Your task to perform on an android device: turn off priority inbox in the gmail app Image 0: 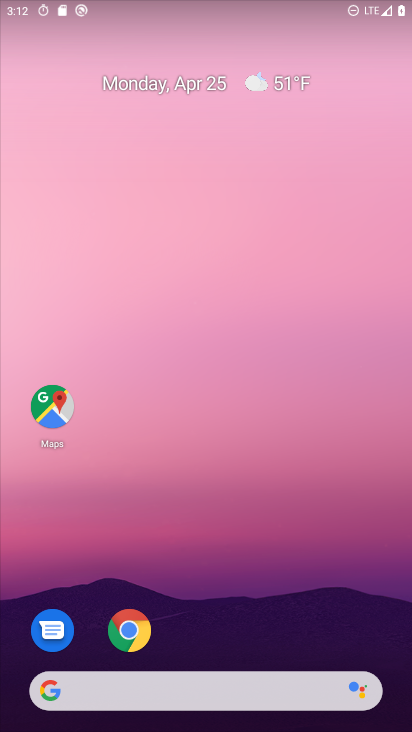
Step 0: click (185, 374)
Your task to perform on an android device: turn off priority inbox in the gmail app Image 1: 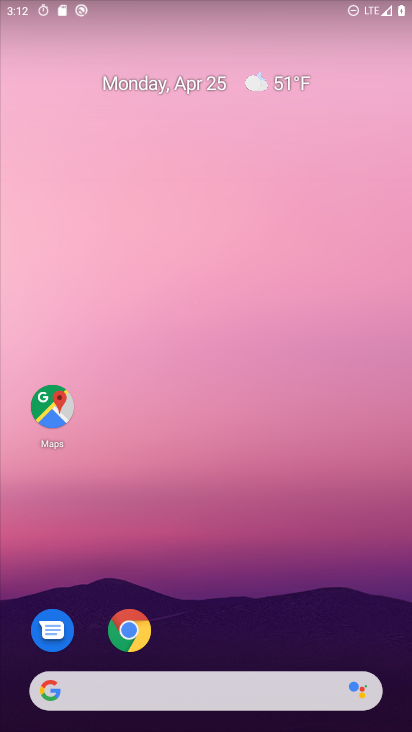
Step 1: click (230, 489)
Your task to perform on an android device: turn off priority inbox in the gmail app Image 2: 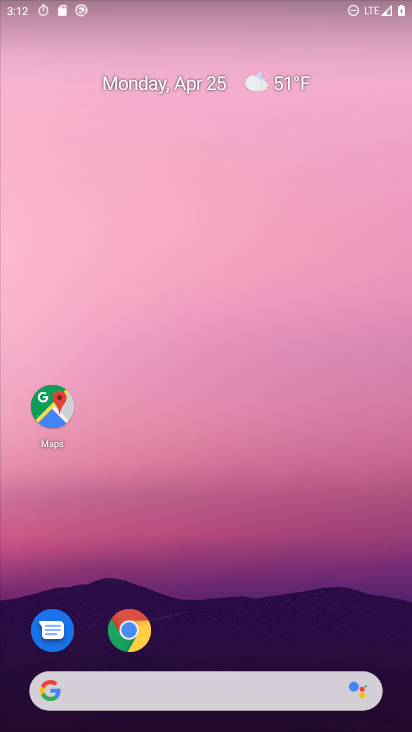
Step 2: drag from (207, 655) to (296, 4)
Your task to perform on an android device: turn off priority inbox in the gmail app Image 3: 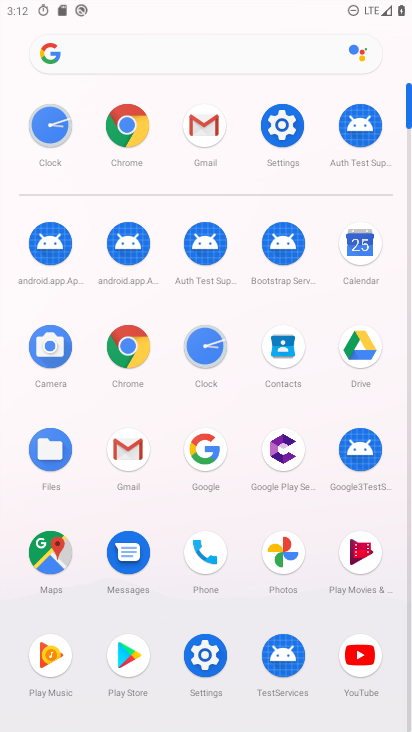
Step 3: drag from (248, 622) to (277, 238)
Your task to perform on an android device: turn off priority inbox in the gmail app Image 4: 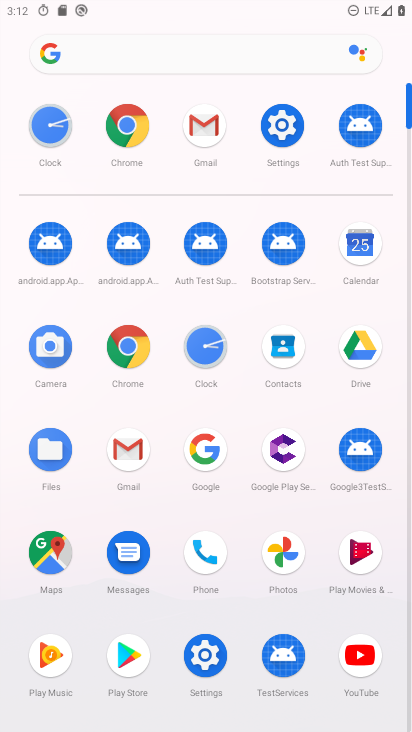
Step 4: drag from (237, 650) to (276, 273)
Your task to perform on an android device: turn off priority inbox in the gmail app Image 5: 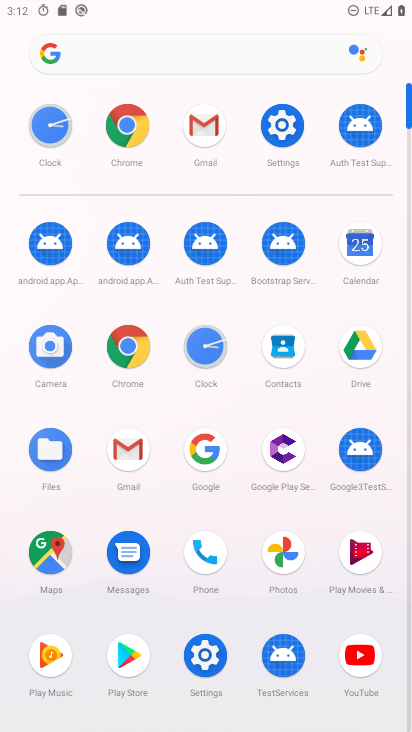
Step 5: drag from (173, 624) to (224, 286)
Your task to perform on an android device: turn off priority inbox in the gmail app Image 6: 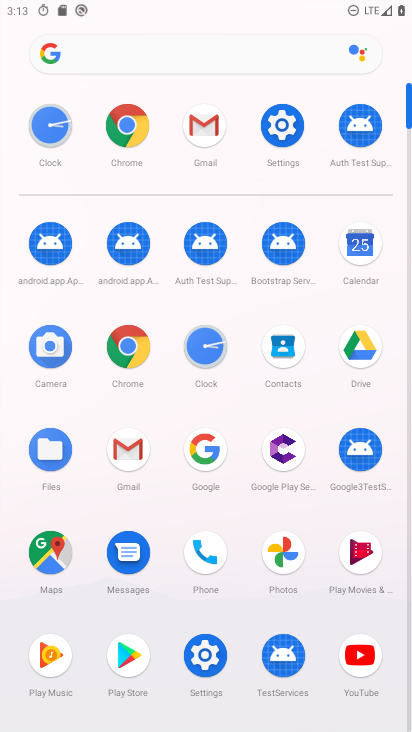
Step 6: drag from (165, 649) to (185, 266)
Your task to perform on an android device: turn off priority inbox in the gmail app Image 7: 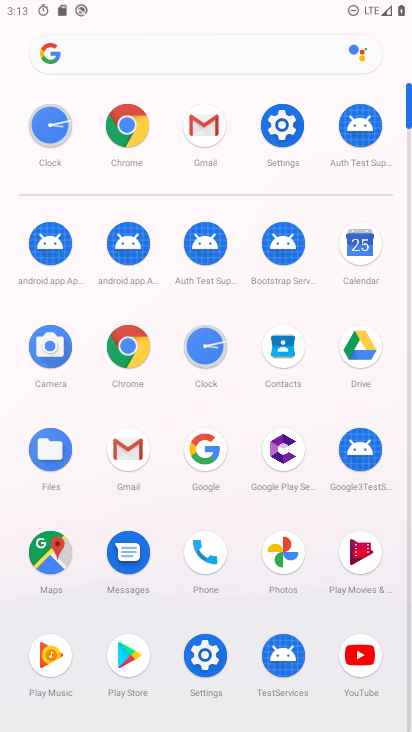
Step 7: click (131, 439)
Your task to perform on an android device: turn off priority inbox in the gmail app Image 8: 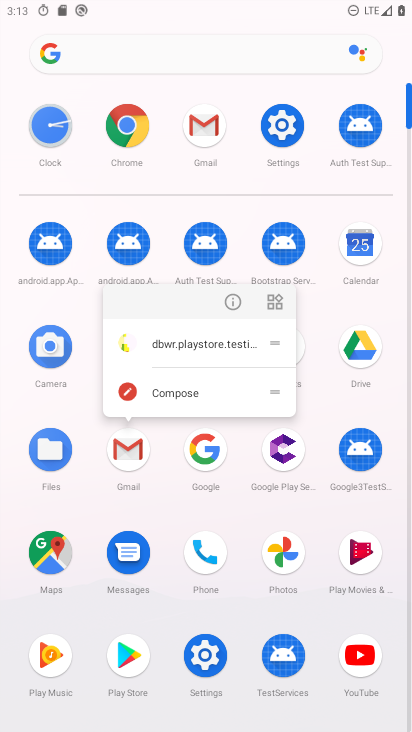
Step 8: click (227, 302)
Your task to perform on an android device: turn off priority inbox in the gmail app Image 9: 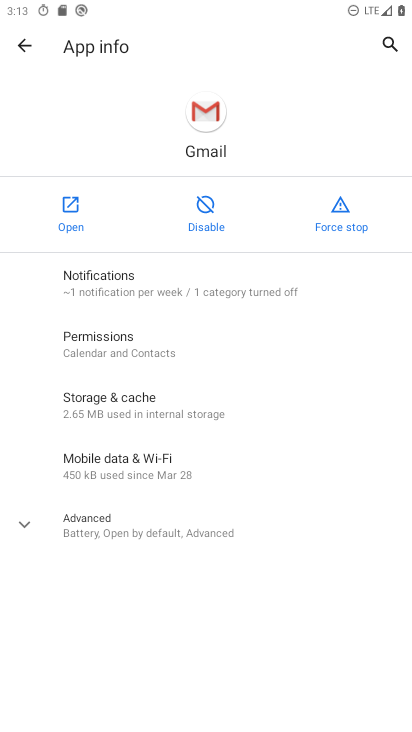
Step 9: click (65, 206)
Your task to perform on an android device: turn off priority inbox in the gmail app Image 10: 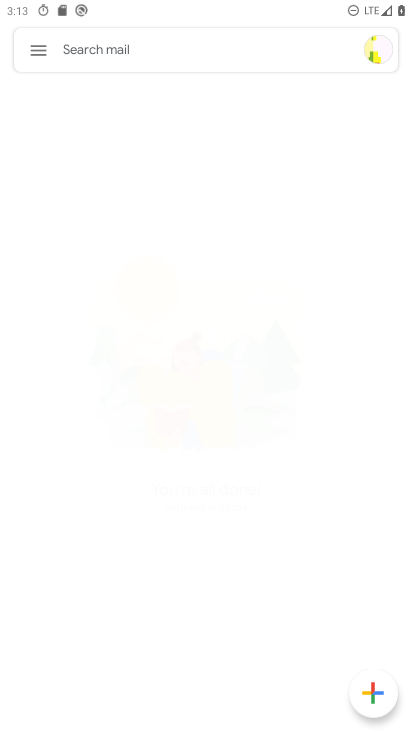
Step 10: click (27, 44)
Your task to perform on an android device: turn off priority inbox in the gmail app Image 11: 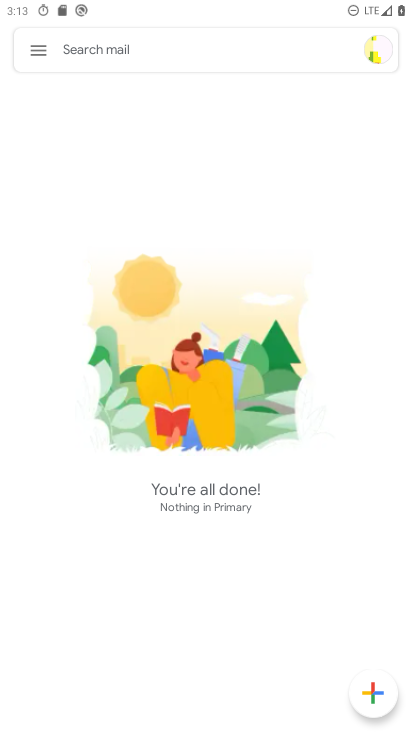
Step 11: click (35, 49)
Your task to perform on an android device: turn off priority inbox in the gmail app Image 12: 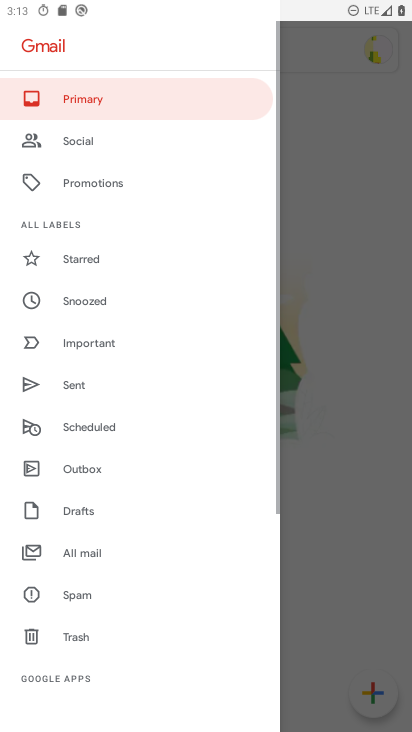
Step 12: drag from (68, 516) to (148, 153)
Your task to perform on an android device: turn off priority inbox in the gmail app Image 13: 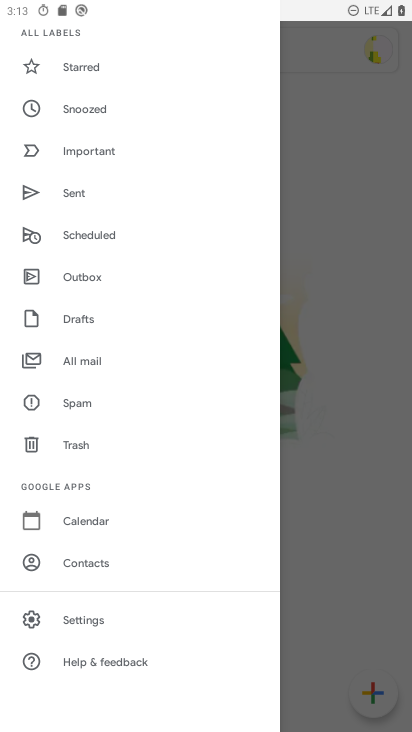
Step 13: drag from (107, 530) to (147, 289)
Your task to perform on an android device: turn off priority inbox in the gmail app Image 14: 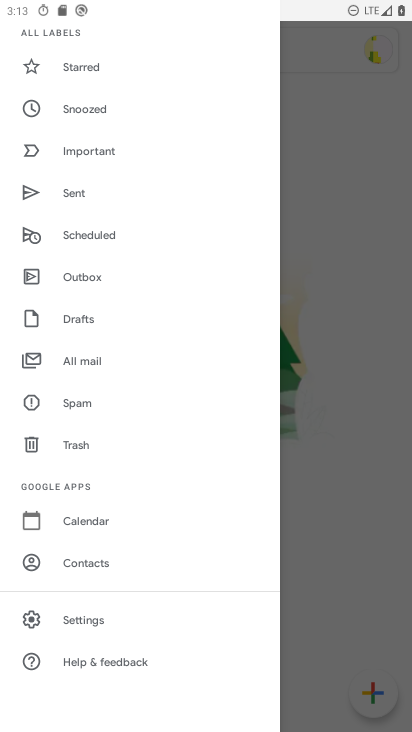
Step 14: click (94, 617)
Your task to perform on an android device: turn off priority inbox in the gmail app Image 15: 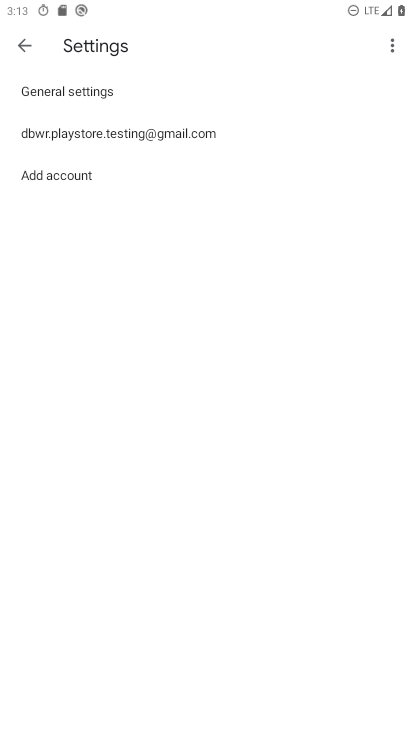
Step 15: click (122, 127)
Your task to perform on an android device: turn off priority inbox in the gmail app Image 16: 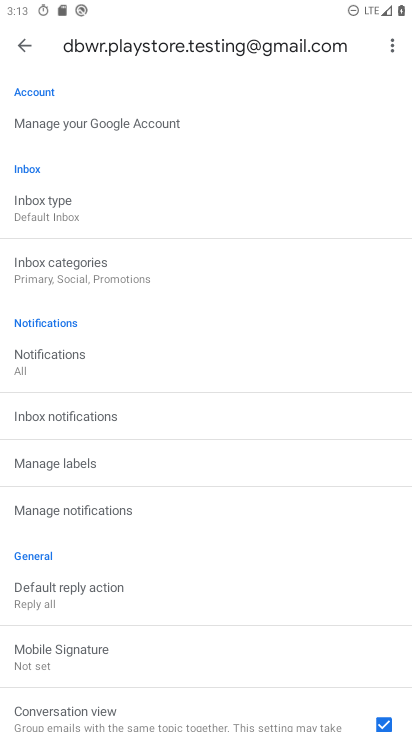
Step 16: click (96, 210)
Your task to perform on an android device: turn off priority inbox in the gmail app Image 17: 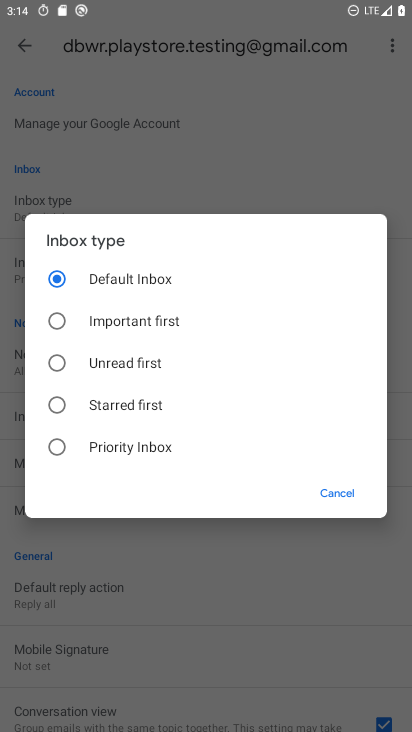
Step 17: click (77, 437)
Your task to perform on an android device: turn off priority inbox in the gmail app Image 18: 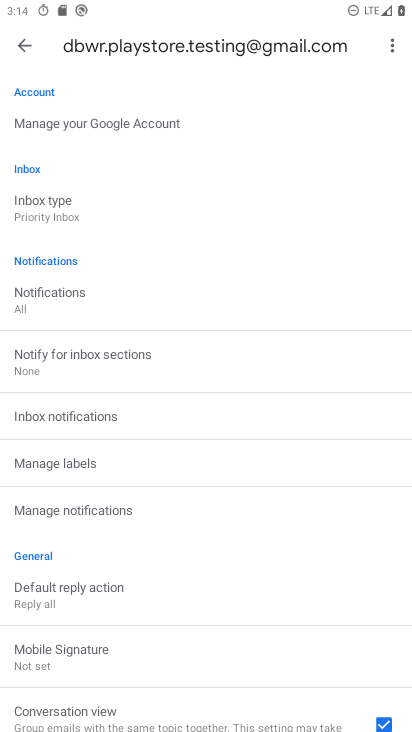
Step 18: click (50, 202)
Your task to perform on an android device: turn off priority inbox in the gmail app Image 19: 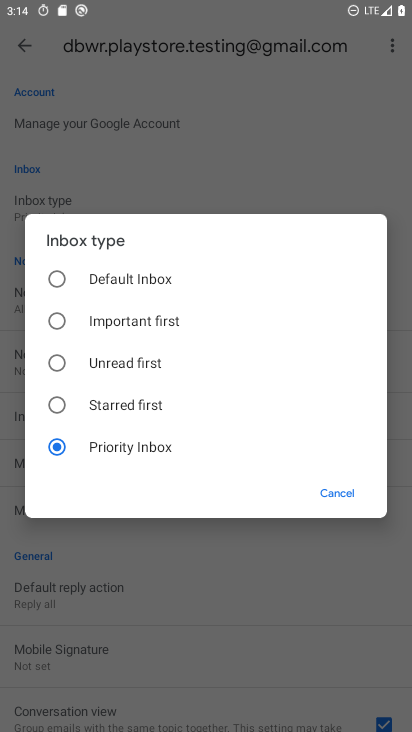
Step 19: click (69, 394)
Your task to perform on an android device: turn off priority inbox in the gmail app Image 20: 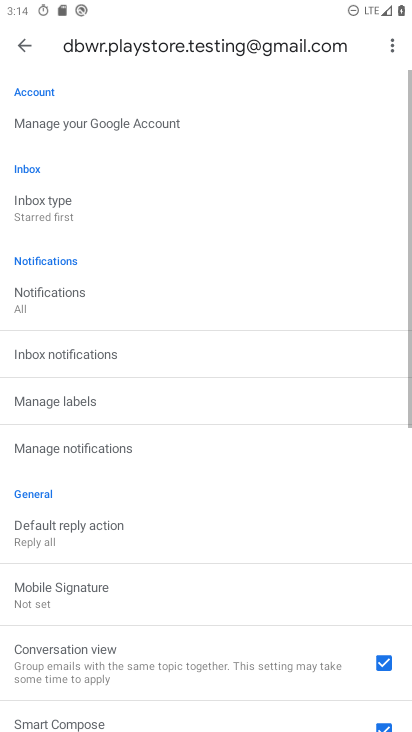
Step 20: task complete